Your task to perform on an android device: Open Yahoo.com Image 0: 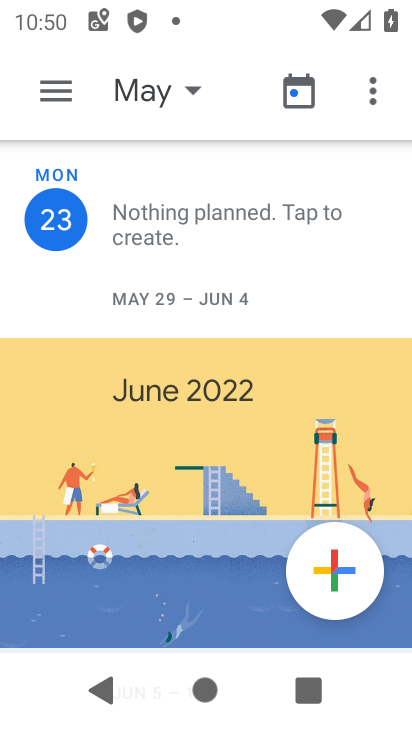
Step 0: press home button
Your task to perform on an android device: Open Yahoo.com Image 1: 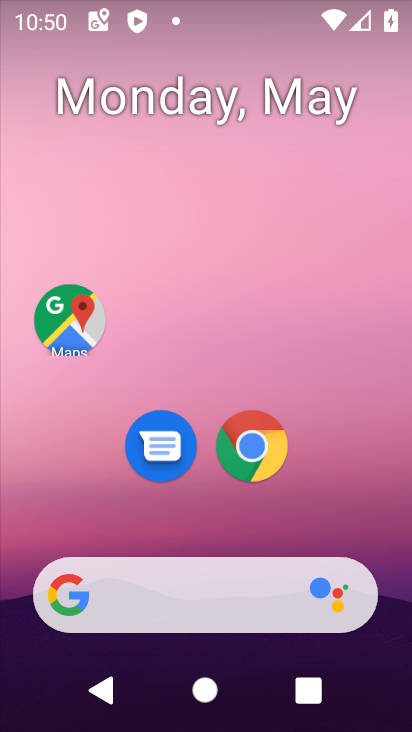
Step 1: click (239, 448)
Your task to perform on an android device: Open Yahoo.com Image 2: 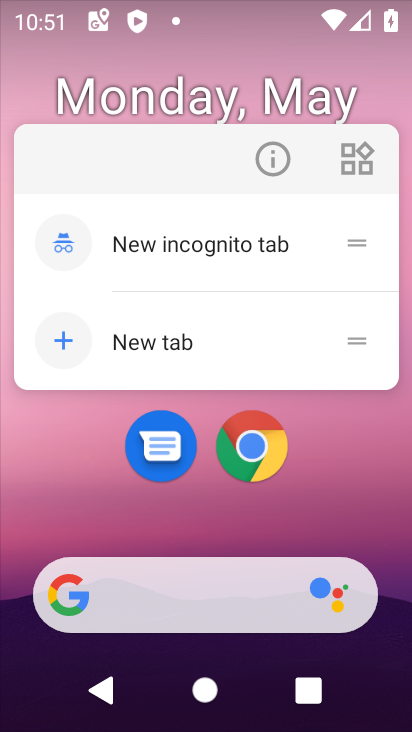
Step 2: click (242, 487)
Your task to perform on an android device: Open Yahoo.com Image 3: 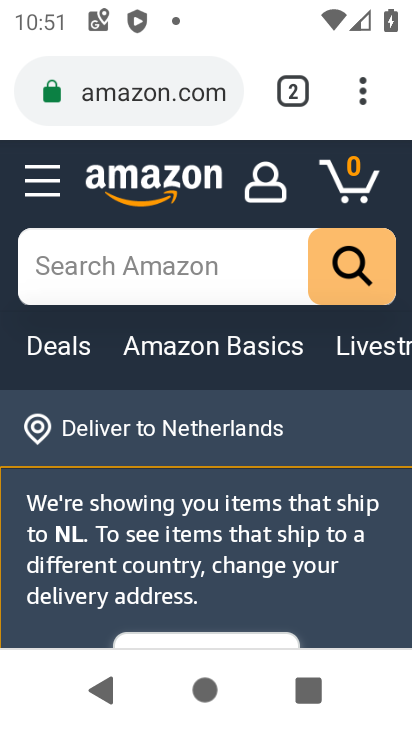
Step 3: click (151, 119)
Your task to perform on an android device: Open Yahoo.com Image 4: 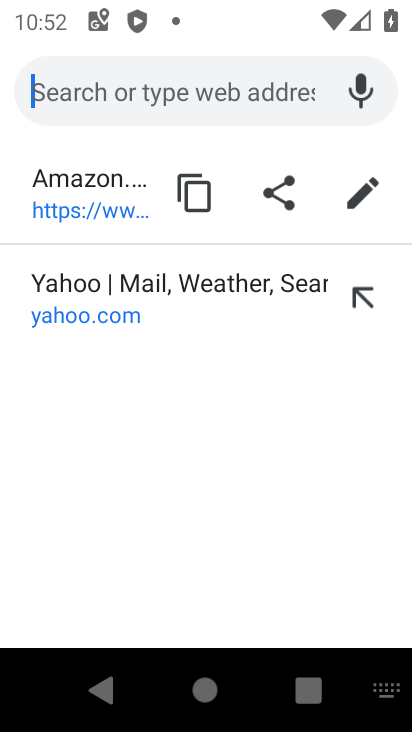
Step 4: click (155, 335)
Your task to perform on an android device: Open Yahoo.com Image 5: 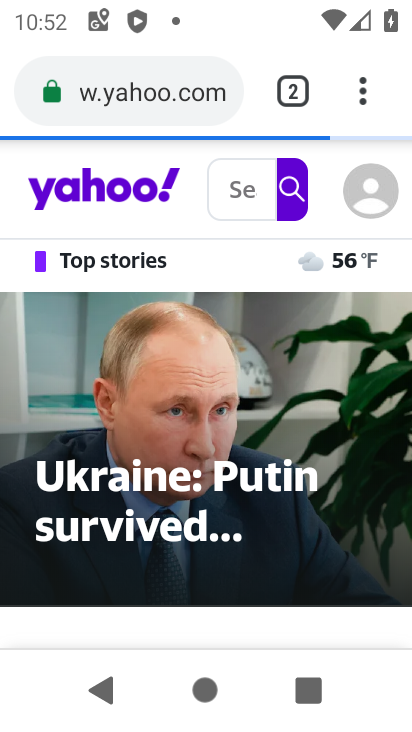
Step 5: task complete